Your task to perform on an android device: Go to Yahoo.com Image 0: 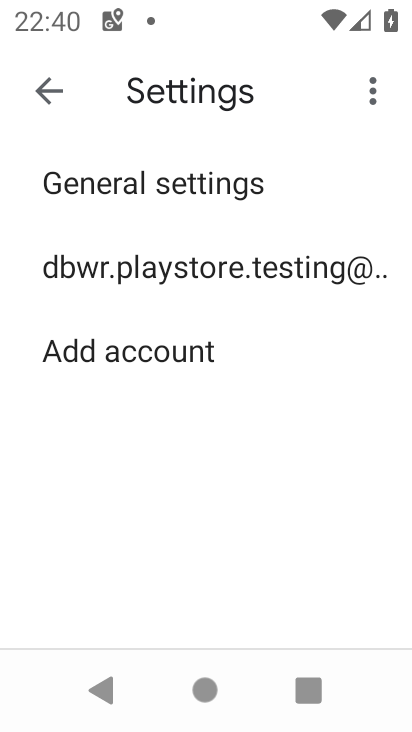
Step 0: press home button
Your task to perform on an android device: Go to Yahoo.com Image 1: 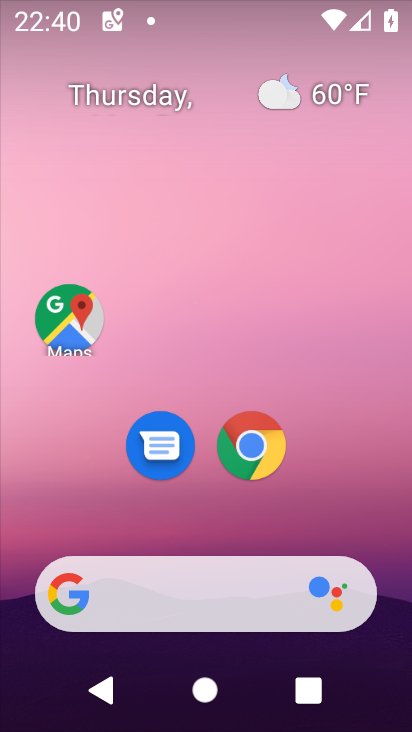
Step 1: click (277, 439)
Your task to perform on an android device: Go to Yahoo.com Image 2: 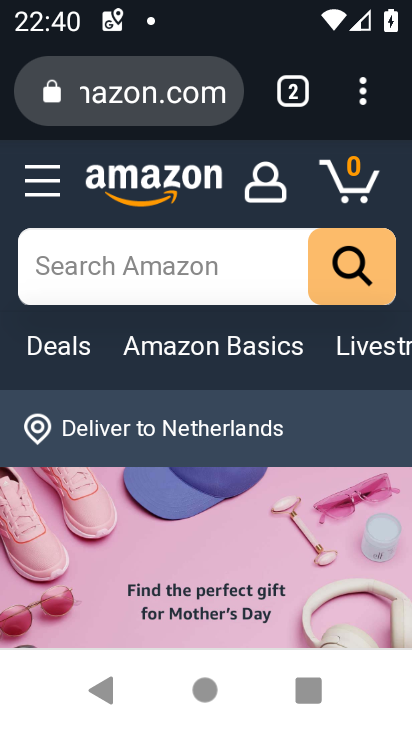
Step 2: click (188, 90)
Your task to perform on an android device: Go to Yahoo.com Image 3: 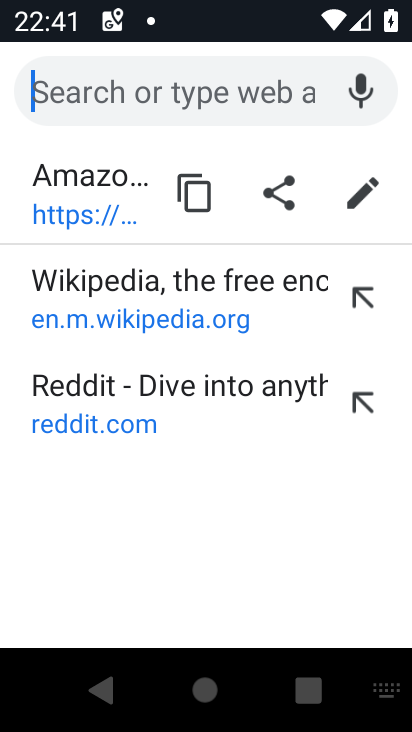
Step 3: type "yahoo.com"
Your task to perform on an android device: Go to Yahoo.com Image 4: 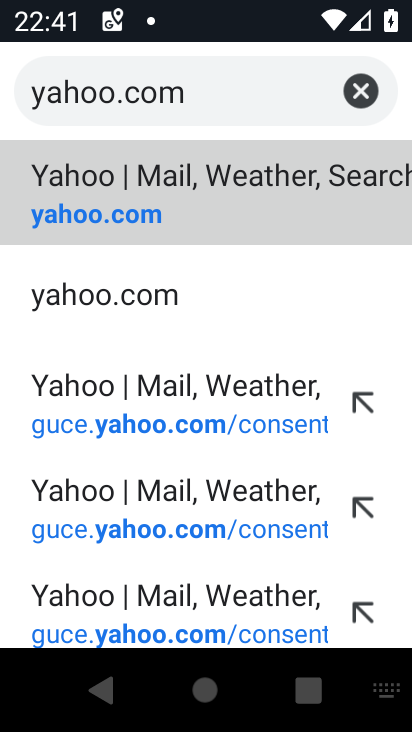
Step 4: click (193, 203)
Your task to perform on an android device: Go to Yahoo.com Image 5: 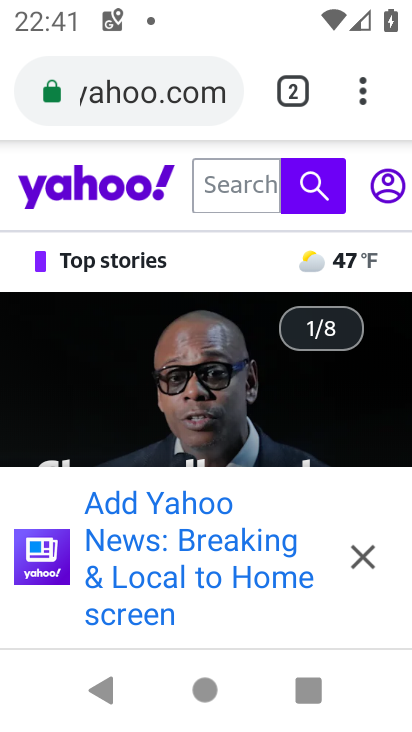
Step 5: task complete